Your task to perform on an android device: install app "Venmo" Image 0: 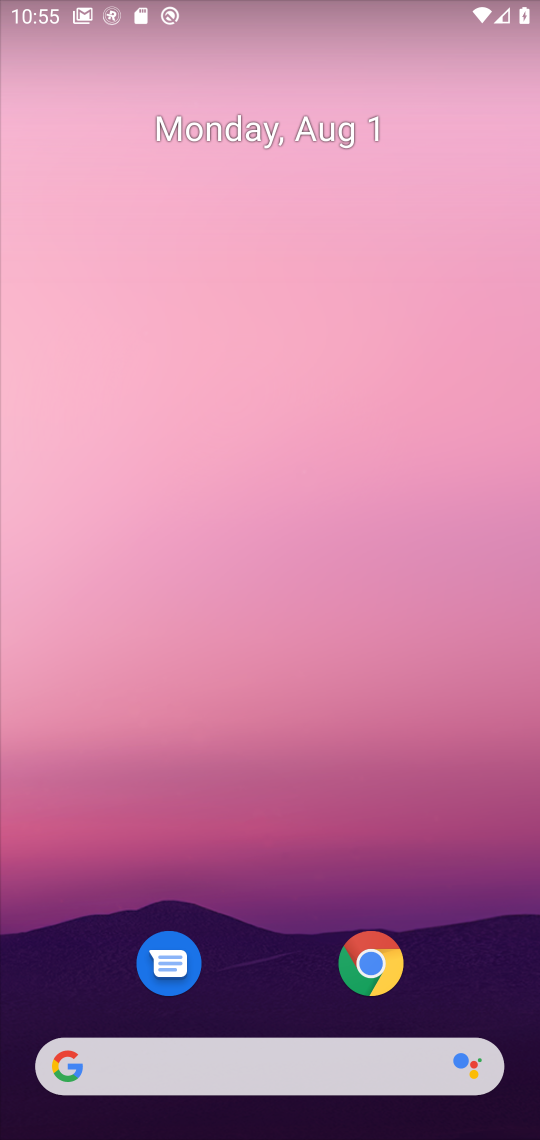
Step 0: drag from (287, 911) to (377, 25)
Your task to perform on an android device: install app "Venmo" Image 1: 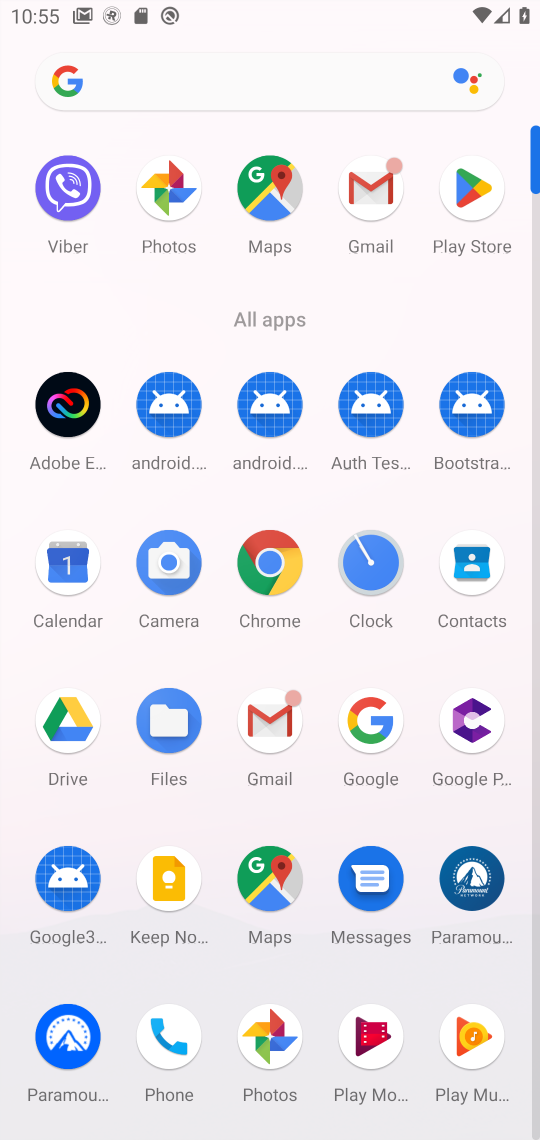
Step 1: click (474, 224)
Your task to perform on an android device: install app "Venmo" Image 2: 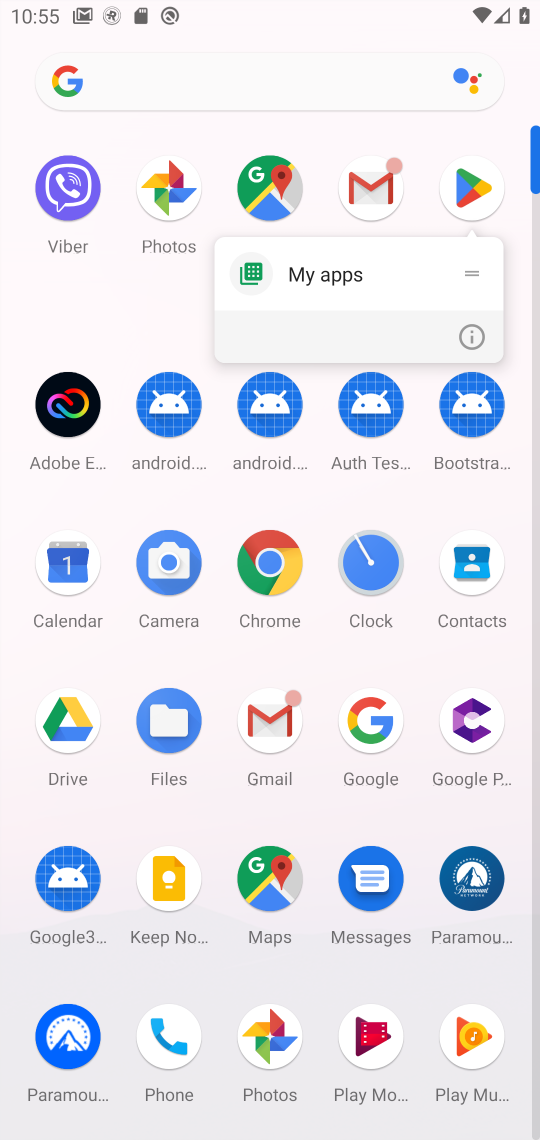
Step 2: click (477, 186)
Your task to perform on an android device: install app "Venmo" Image 3: 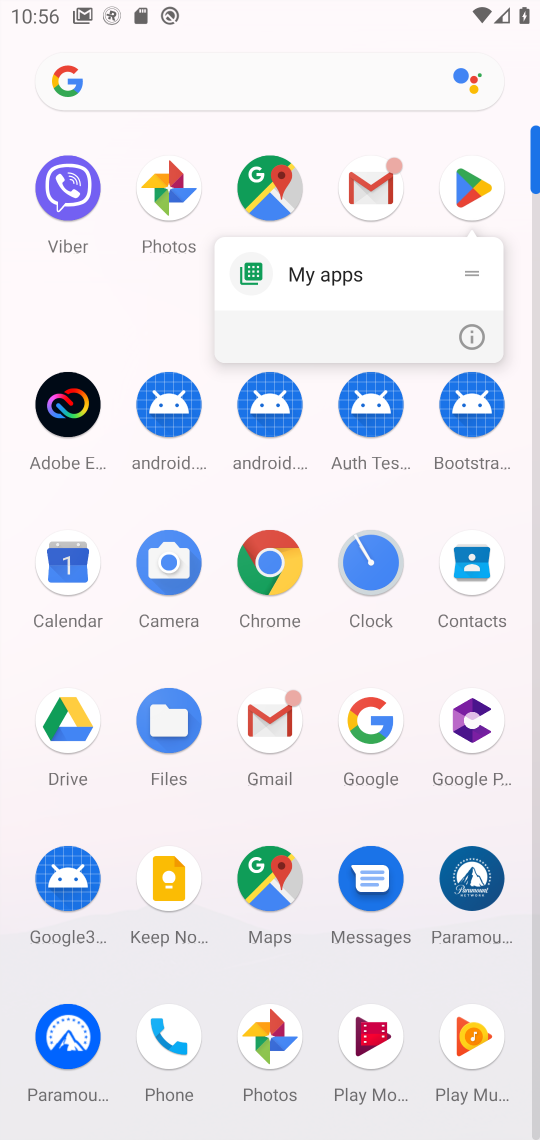
Step 3: click (478, 181)
Your task to perform on an android device: install app "Venmo" Image 4: 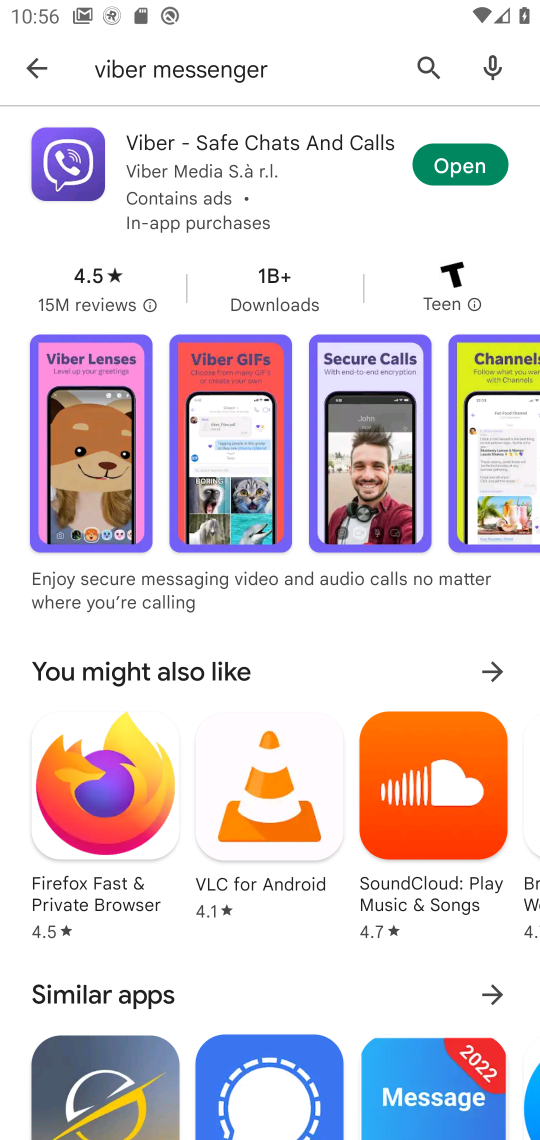
Step 4: click (220, 66)
Your task to perform on an android device: install app "Venmo" Image 5: 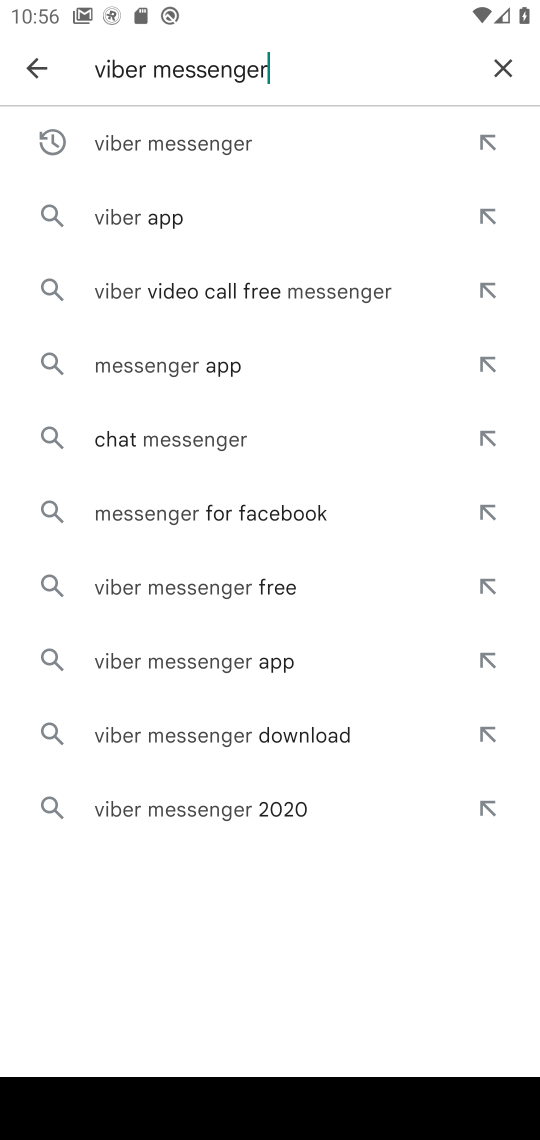
Step 5: click (506, 78)
Your task to perform on an android device: install app "Venmo" Image 6: 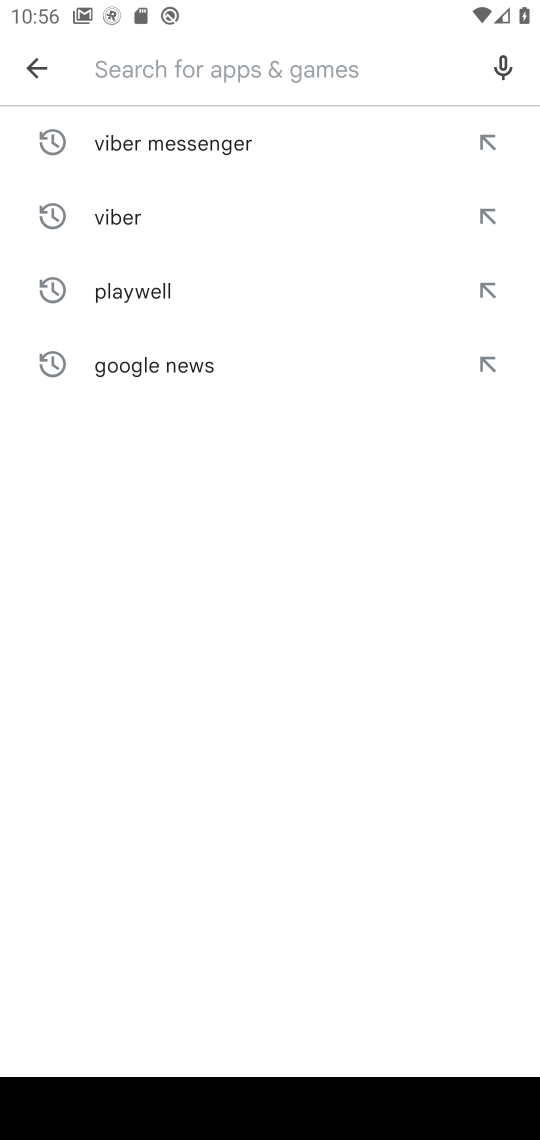
Step 6: type "Venmo"
Your task to perform on an android device: install app "Venmo" Image 7: 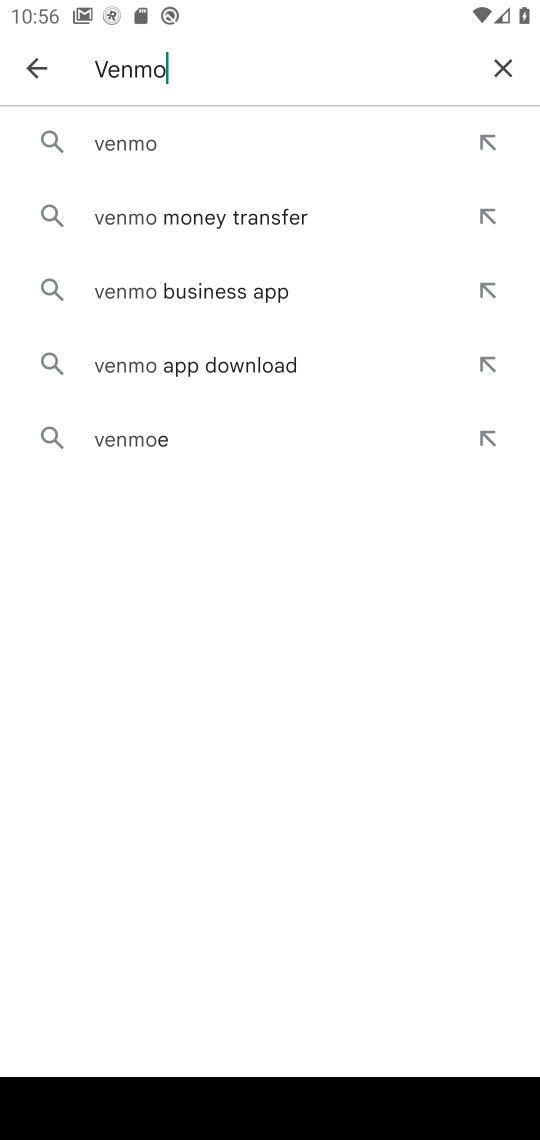
Step 7: click (179, 132)
Your task to perform on an android device: install app "Venmo" Image 8: 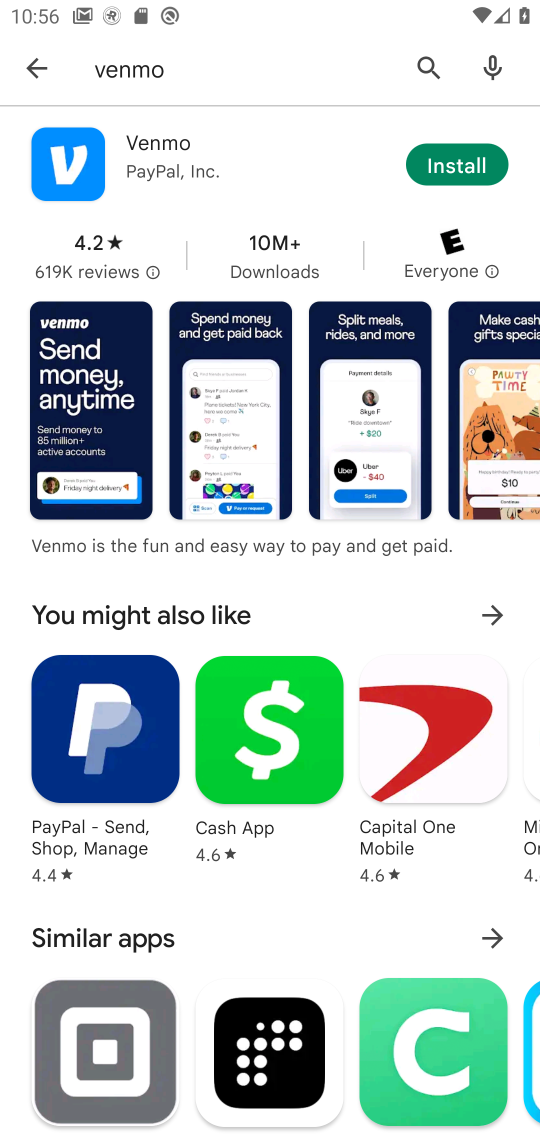
Step 8: click (491, 171)
Your task to perform on an android device: install app "Venmo" Image 9: 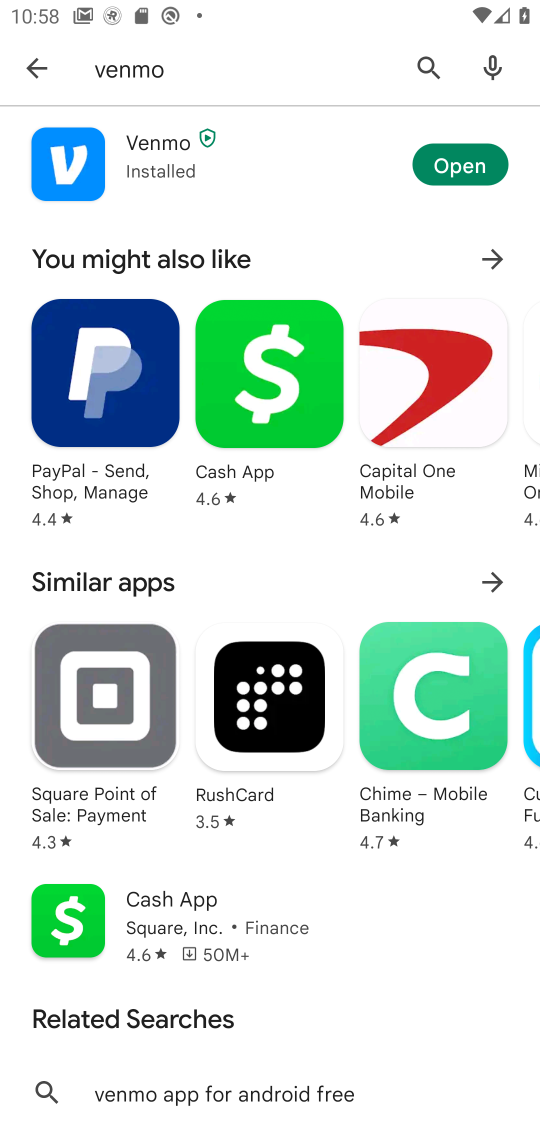
Step 9: task complete